Your task to perform on an android device: turn on sleep mode Image 0: 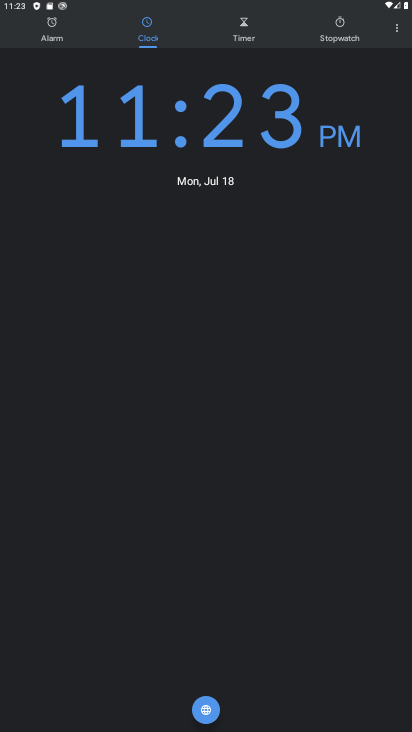
Step 0: press home button
Your task to perform on an android device: turn on sleep mode Image 1: 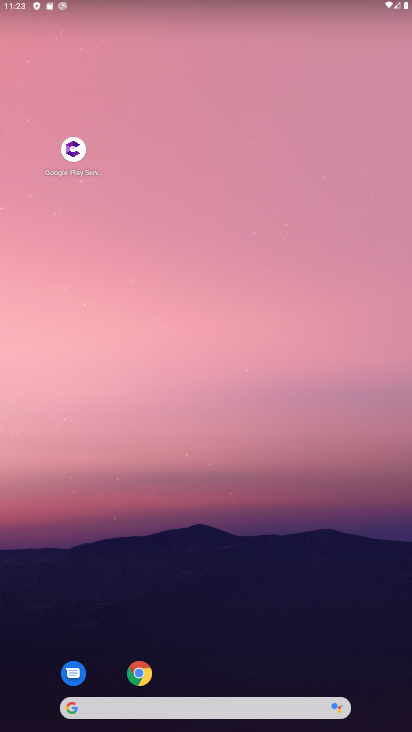
Step 1: drag from (277, 661) to (199, 252)
Your task to perform on an android device: turn on sleep mode Image 2: 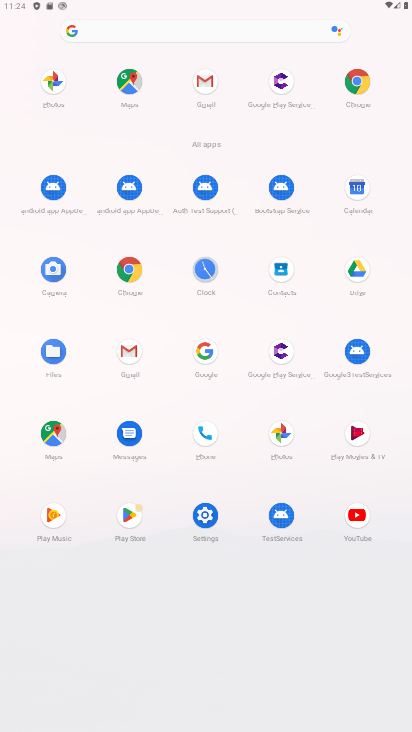
Step 2: click (205, 515)
Your task to perform on an android device: turn on sleep mode Image 3: 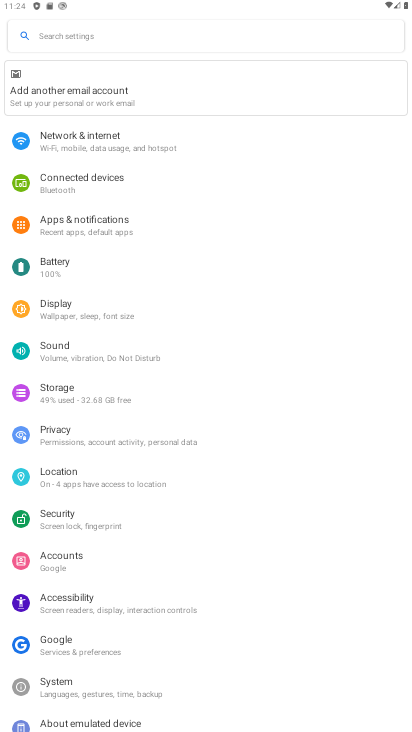
Step 3: click (74, 313)
Your task to perform on an android device: turn on sleep mode Image 4: 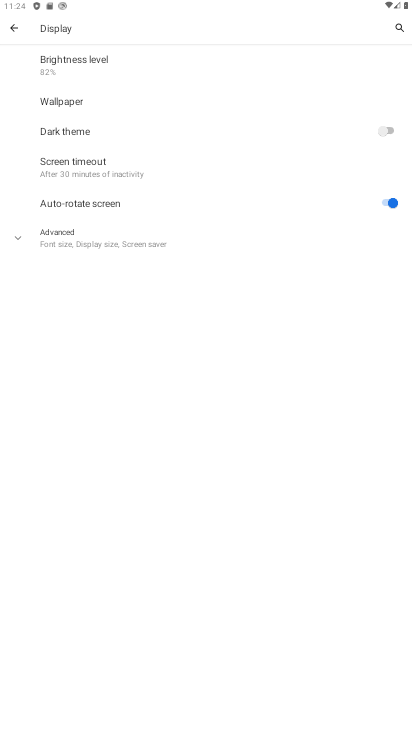
Step 4: task complete